Your task to perform on an android device: Open calendar and show me the third week of next month Image 0: 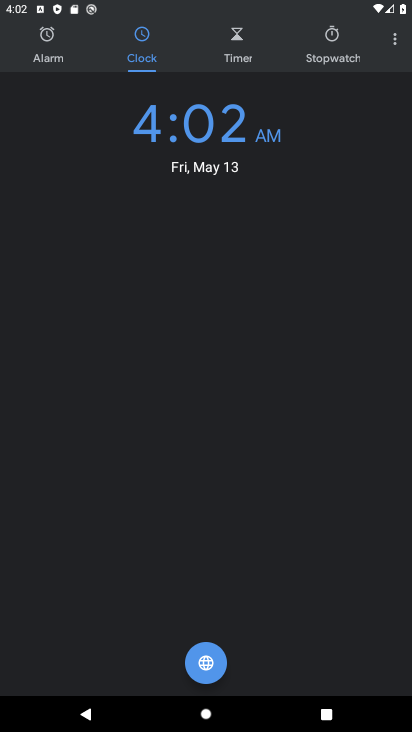
Step 0: press home button
Your task to perform on an android device: Open calendar and show me the third week of next month Image 1: 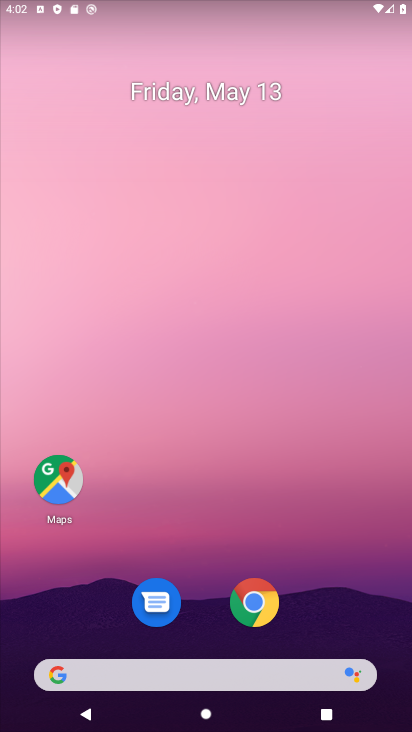
Step 1: drag from (232, 658) to (263, 333)
Your task to perform on an android device: Open calendar and show me the third week of next month Image 2: 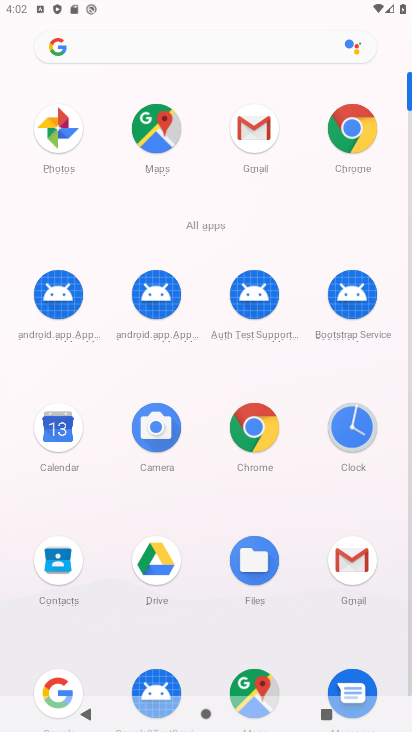
Step 2: click (63, 421)
Your task to perform on an android device: Open calendar and show me the third week of next month Image 3: 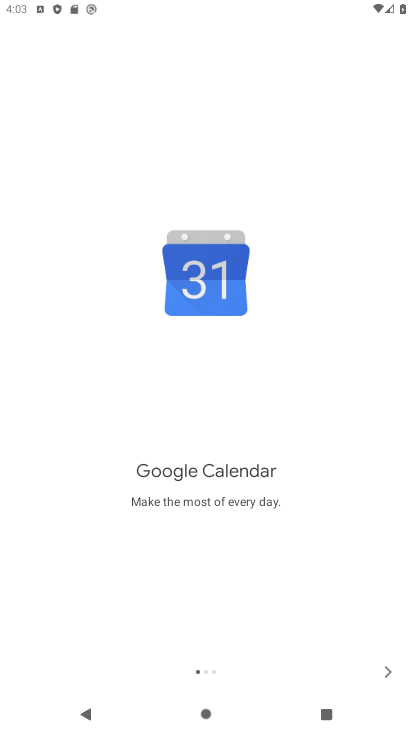
Step 3: click (388, 675)
Your task to perform on an android device: Open calendar and show me the third week of next month Image 4: 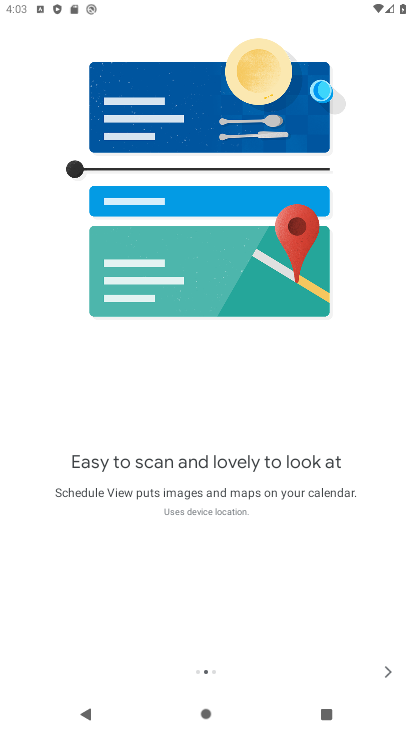
Step 4: click (388, 675)
Your task to perform on an android device: Open calendar and show me the third week of next month Image 5: 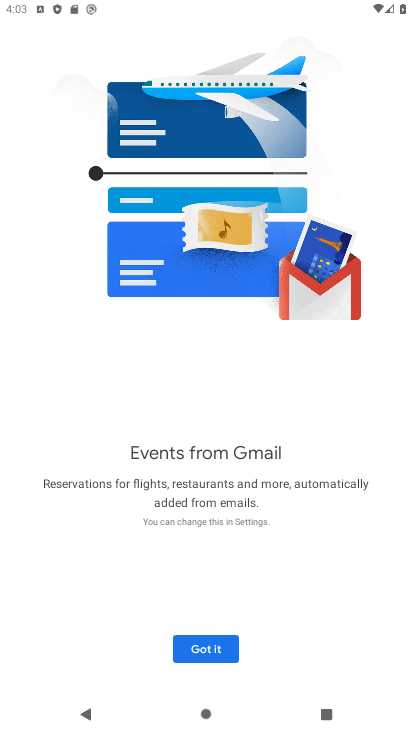
Step 5: click (208, 651)
Your task to perform on an android device: Open calendar and show me the third week of next month Image 6: 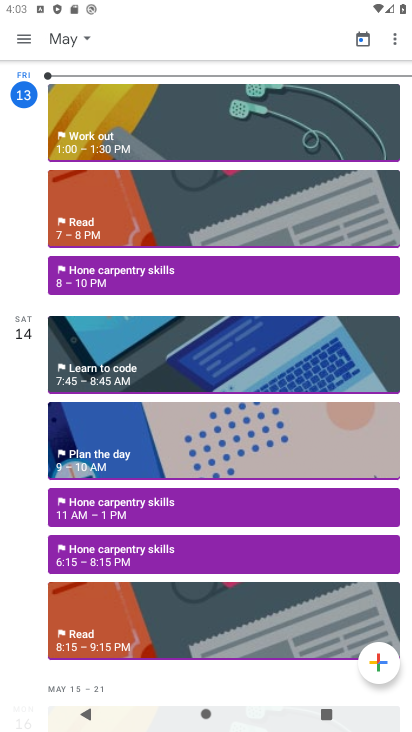
Step 6: click (68, 39)
Your task to perform on an android device: Open calendar and show me the third week of next month Image 7: 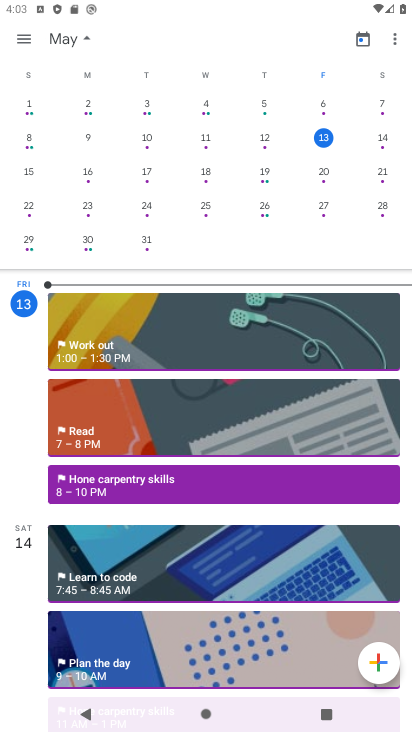
Step 7: drag from (357, 199) to (4, 200)
Your task to perform on an android device: Open calendar and show me the third week of next month Image 8: 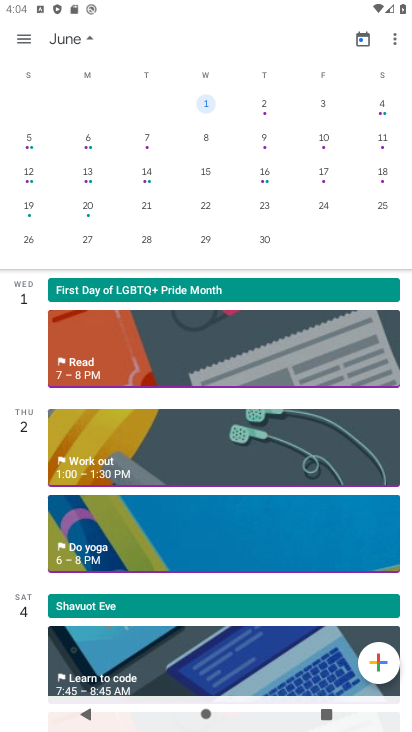
Step 8: click (23, 176)
Your task to perform on an android device: Open calendar and show me the third week of next month Image 9: 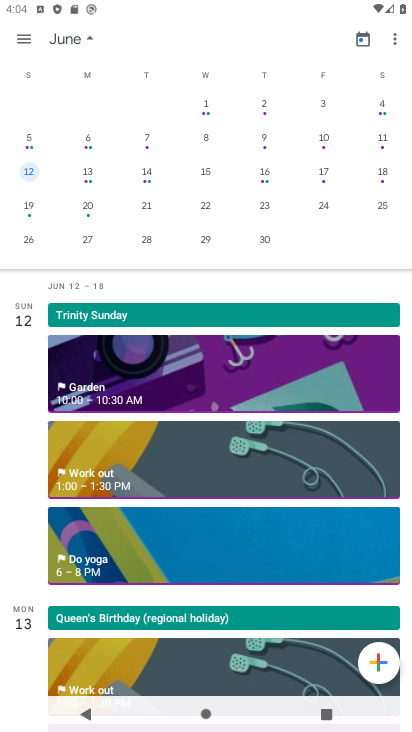
Step 9: task complete